Your task to perform on an android device: find photos in the google photos app Image 0: 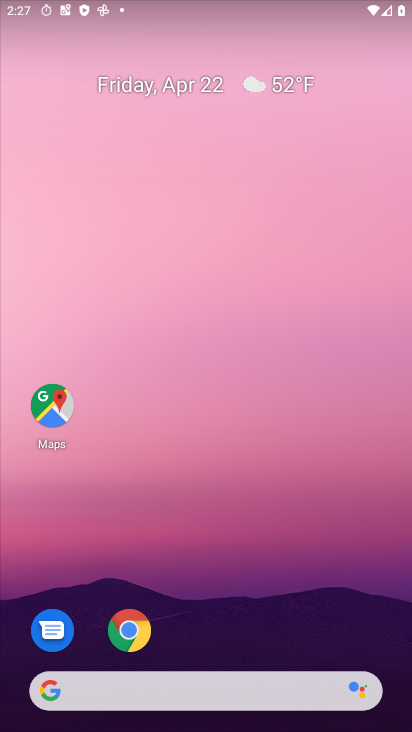
Step 0: drag from (123, 631) to (160, 573)
Your task to perform on an android device: find photos in the google photos app Image 1: 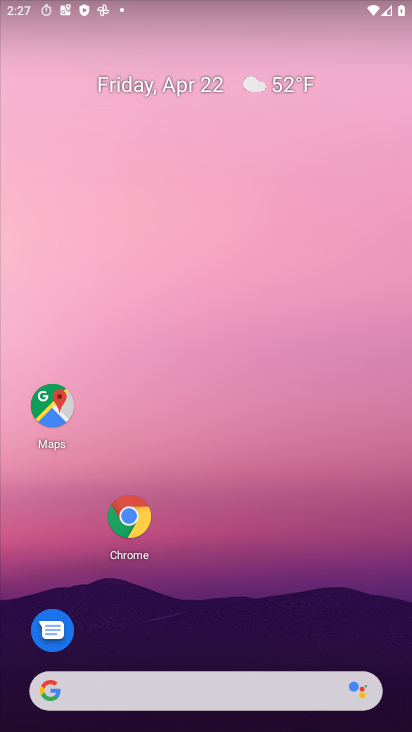
Step 1: drag from (384, 635) to (318, 217)
Your task to perform on an android device: find photos in the google photos app Image 2: 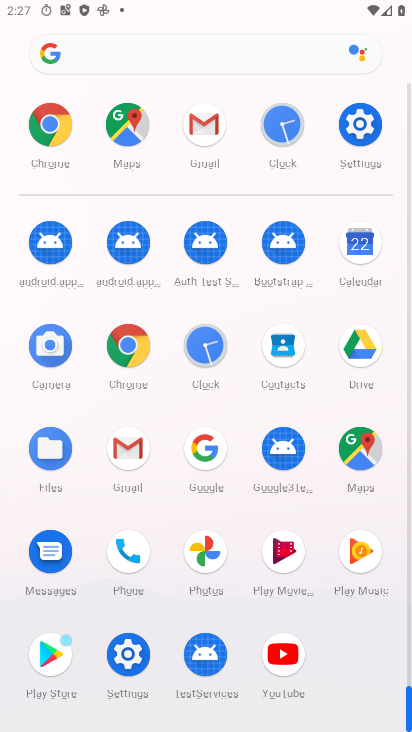
Step 2: click (209, 539)
Your task to perform on an android device: find photos in the google photos app Image 3: 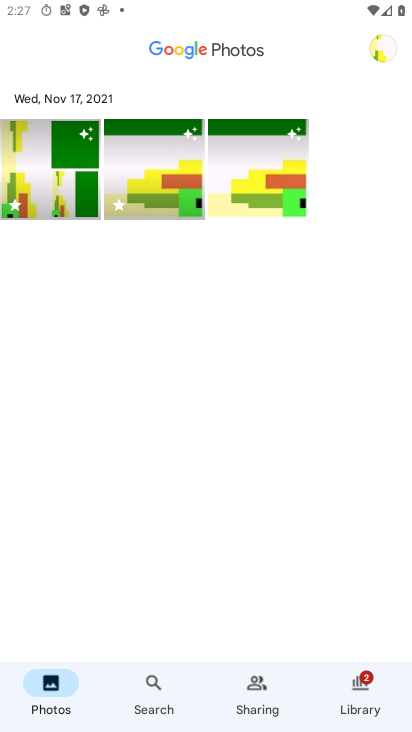
Step 3: click (35, 183)
Your task to perform on an android device: find photos in the google photos app Image 4: 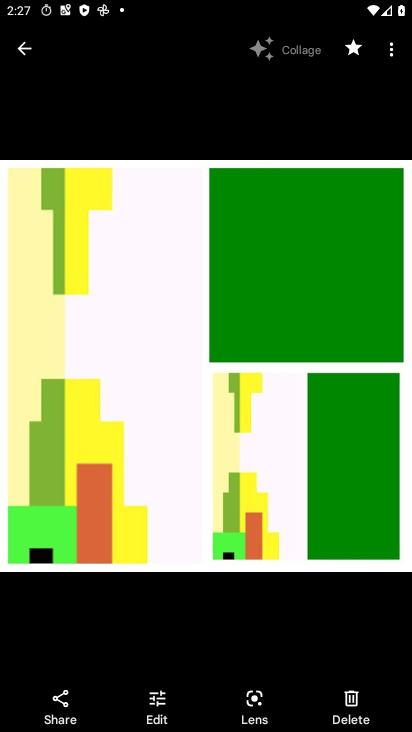
Step 4: click (32, 53)
Your task to perform on an android device: find photos in the google photos app Image 5: 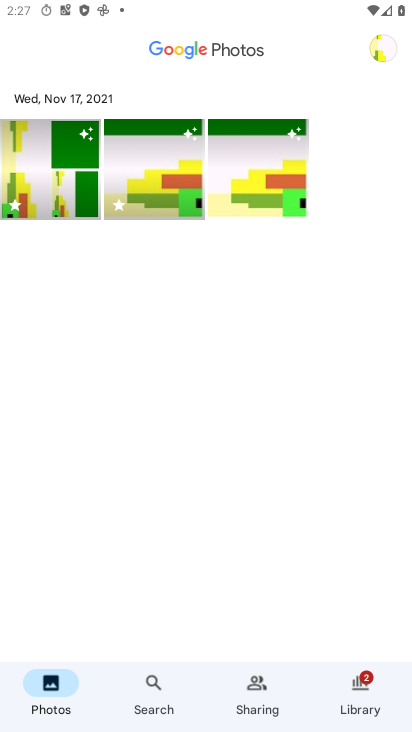
Step 5: click (130, 165)
Your task to perform on an android device: find photos in the google photos app Image 6: 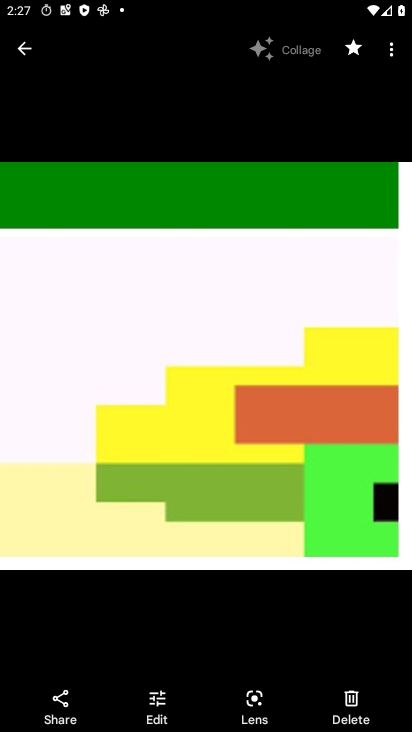
Step 6: click (18, 44)
Your task to perform on an android device: find photos in the google photos app Image 7: 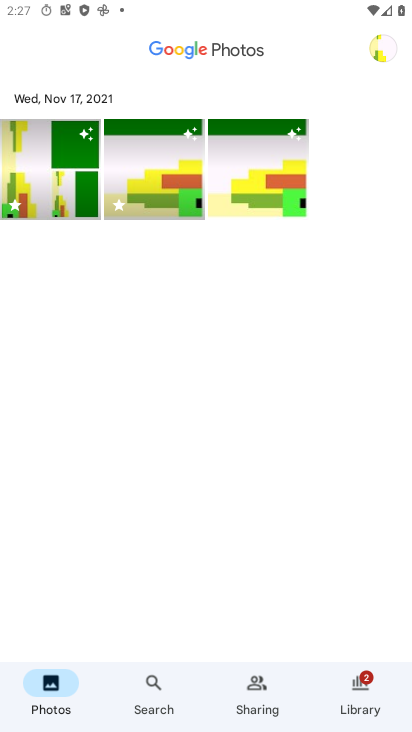
Step 7: click (251, 169)
Your task to perform on an android device: find photos in the google photos app Image 8: 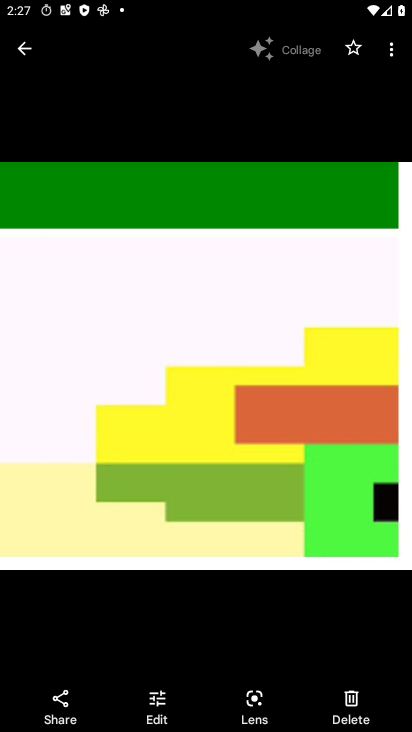
Step 8: click (16, 49)
Your task to perform on an android device: find photos in the google photos app Image 9: 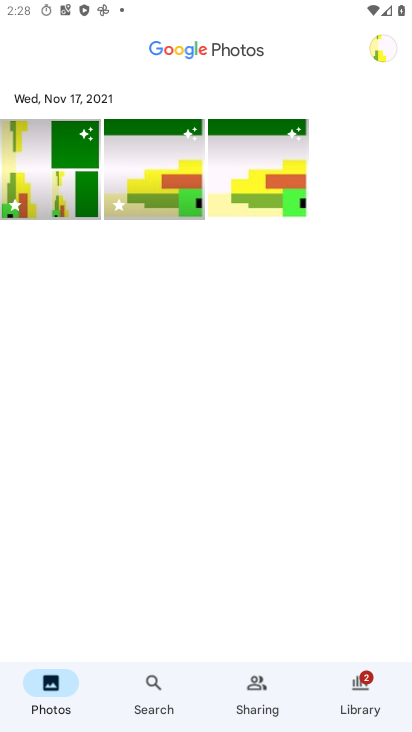
Step 9: task complete